Your task to perform on an android device: find photos in the google photos app Image 0: 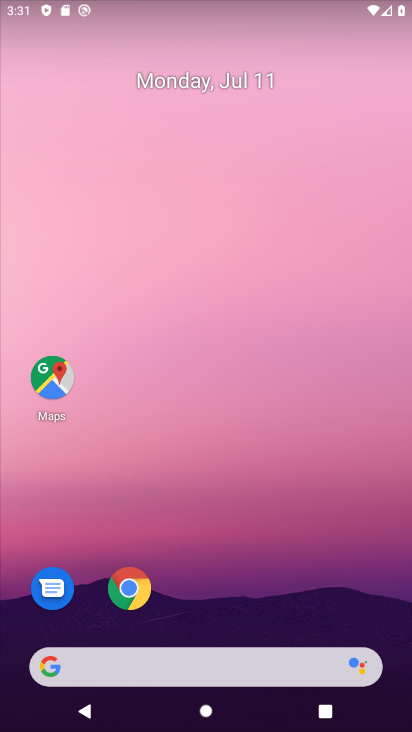
Step 0: drag from (352, 607) to (355, 78)
Your task to perform on an android device: find photos in the google photos app Image 1: 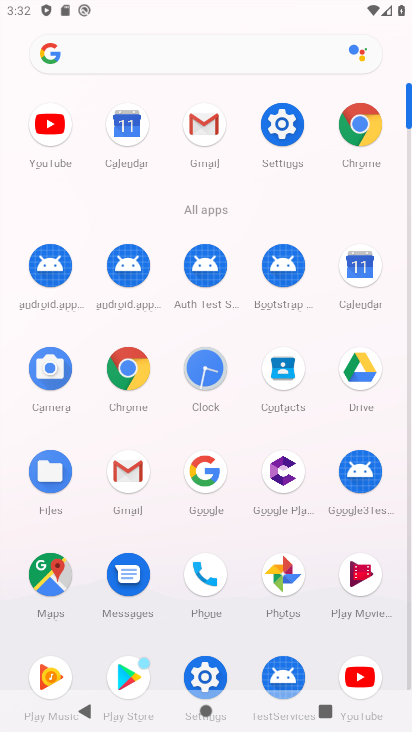
Step 1: click (286, 572)
Your task to perform on an android device: find photos in the google photos app Image 2: 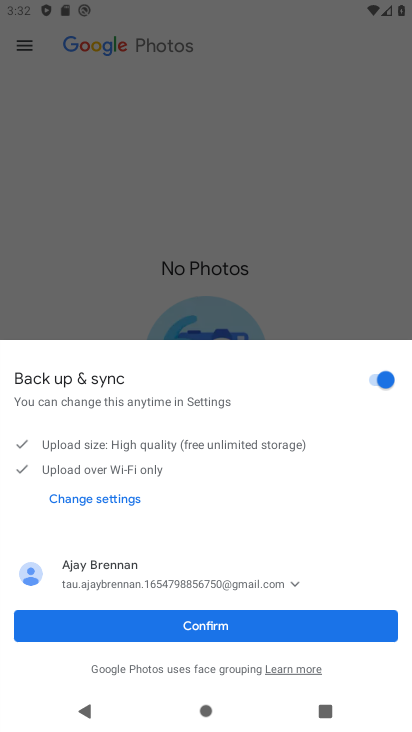
Step 2: click (228, 630)
Your task to perform on an android device: find photos in the google photos app Image 3: 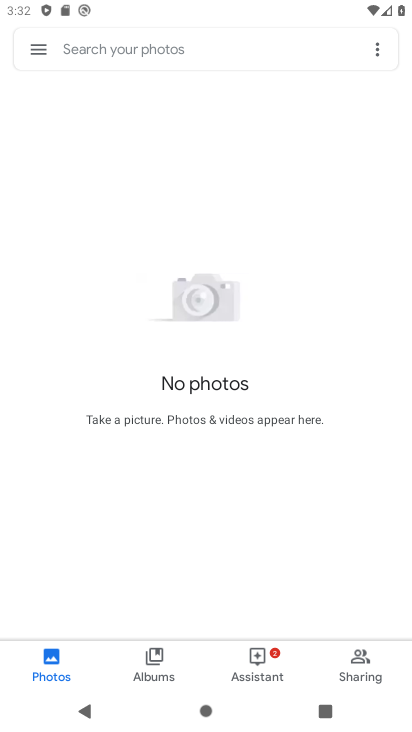
Step 3: task complete